Your task to perform on an android device: change timer sound Image 0: 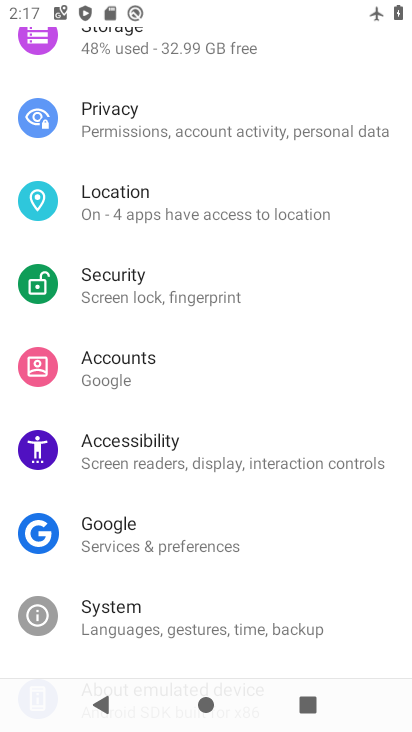
Step 0: press home button
Your task to perform on an android device: change timer sound Image 1: 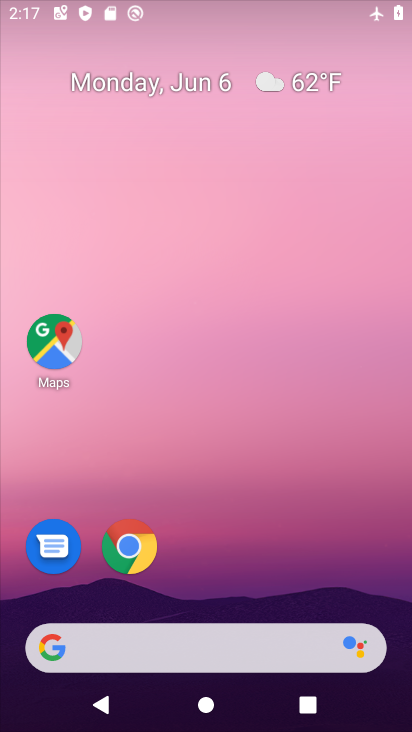
Step 1: drag from (309, 522) to (238, 108)
Your task to perform on an android device: change timer sound Image 2: 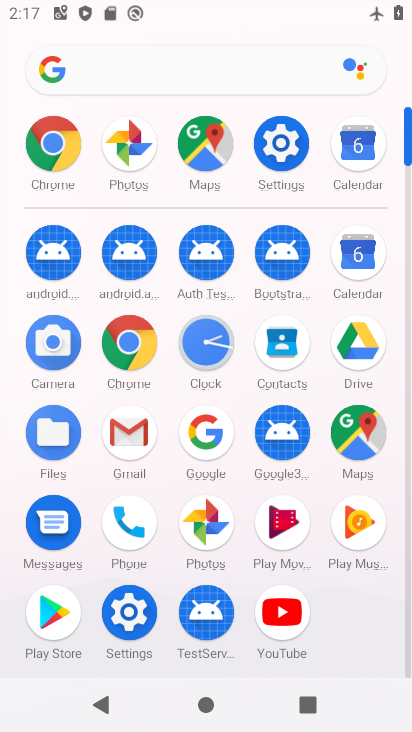
Step 2: click (201, 333)
Your task to perform on an android device: change timer sound Image 3: 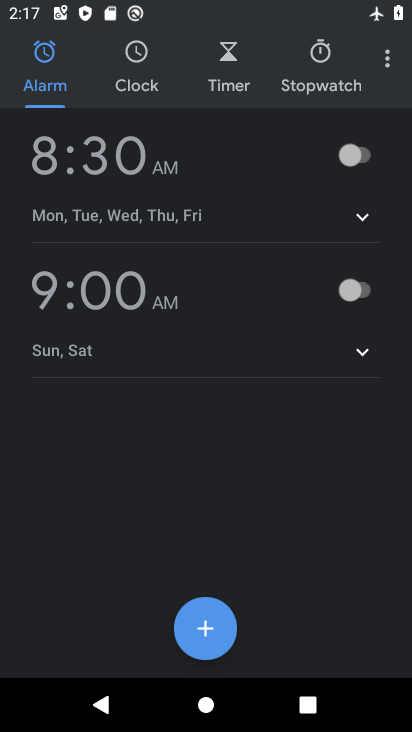
Step 3: click (385, 63)
Your task to perform on an android device: change timer sound Image 4: 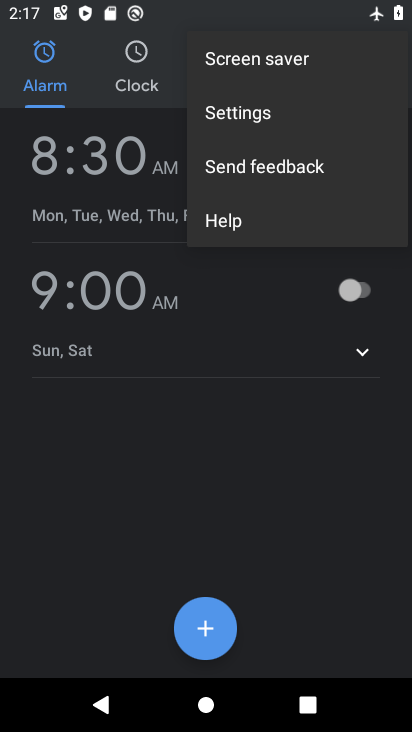
Step 4: click (254, 129)
Your task to perform on an android device: change timer sound Image 5: 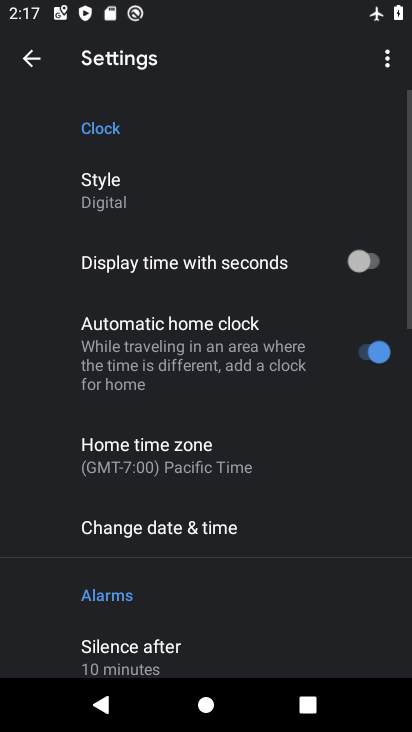
Step 5: drag from (262, 567) to (248, 99)
Your task to perform on an android device: change timer sound Image 6: 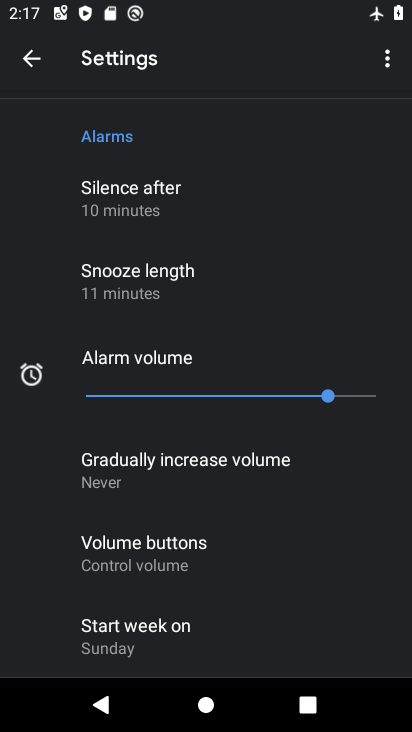
Step 6: drag from (236, 496) to (267, 114)
Your task to perform on an android device: change timer sound Image 7: 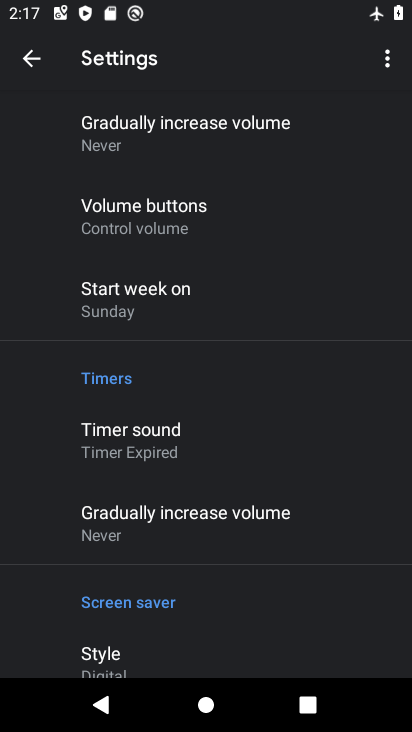
Step 7: click (164, 446)
Your task to perform on an android device: change timer sound Image 8: 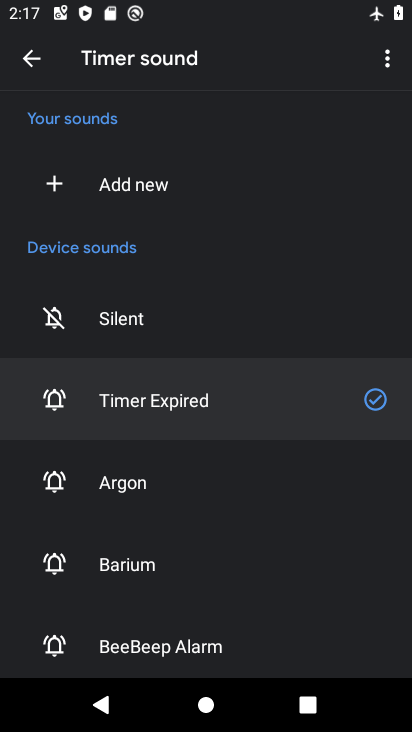
Step 8: click (265, 502)
Your task to perform on an android device: change timer sound Image 9: 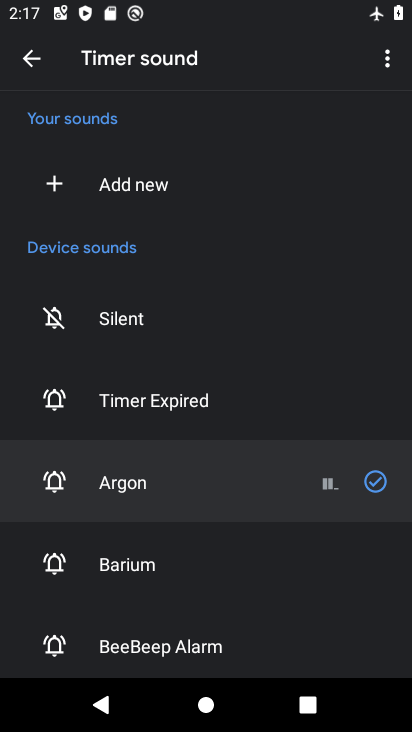
Step 9: task complete